Your task to perform on an android device: Search for the new Nintendo switch on Best Buy Image 0: 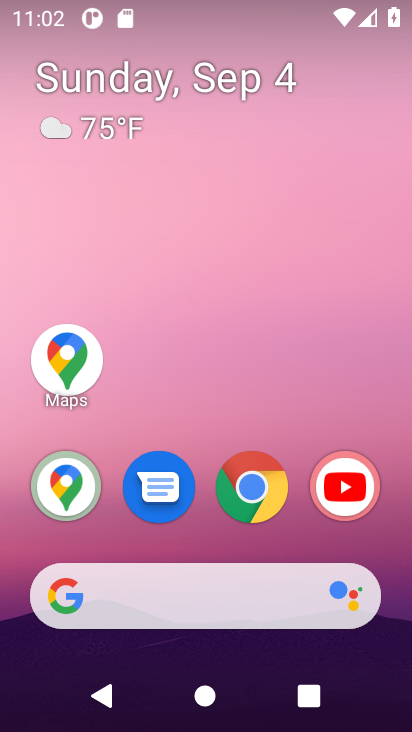
Step 0: click (68, 370)
Your task to perform on an android device: Search for the new Nintendo switch on Best Buy Image 1: 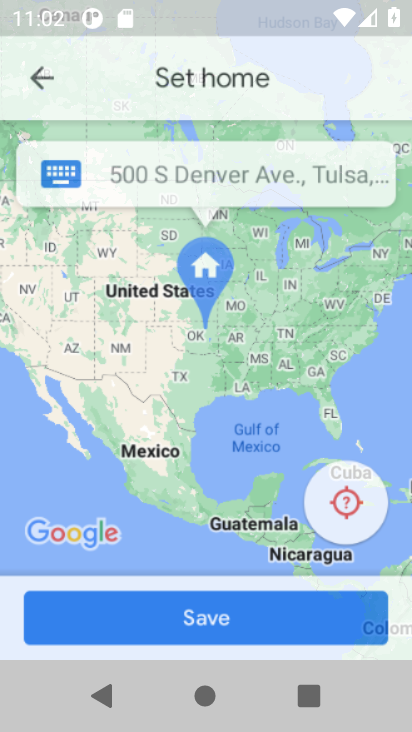
Step 1: task complete